Your task to perform on an android device: turn on priority inbox in the gmail app Image 0: 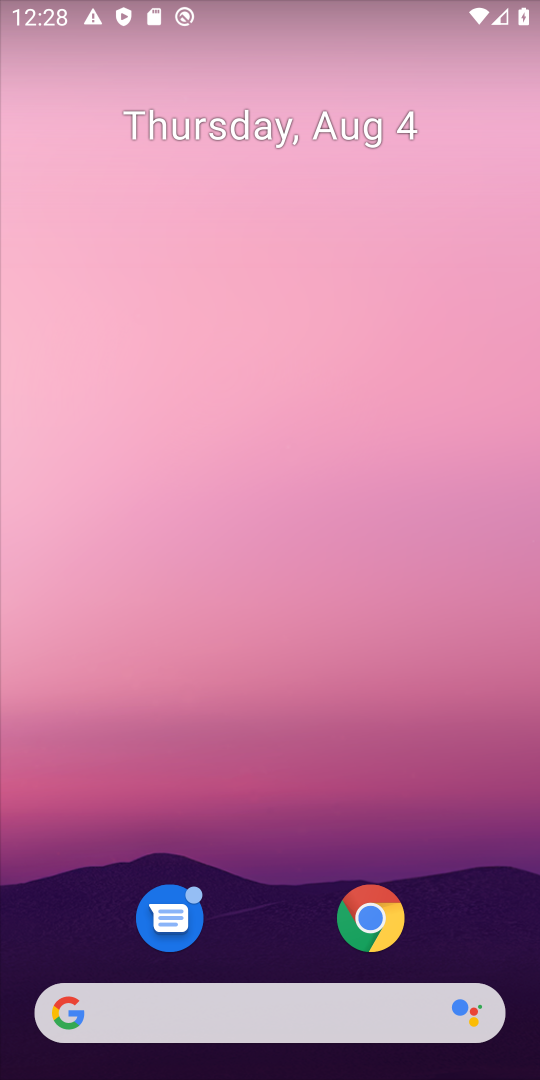
Step 0: drag from (267, 917) to (302, 252)
Your task to perform on an android device: turn on priority inbox in the gmail app Image 1: 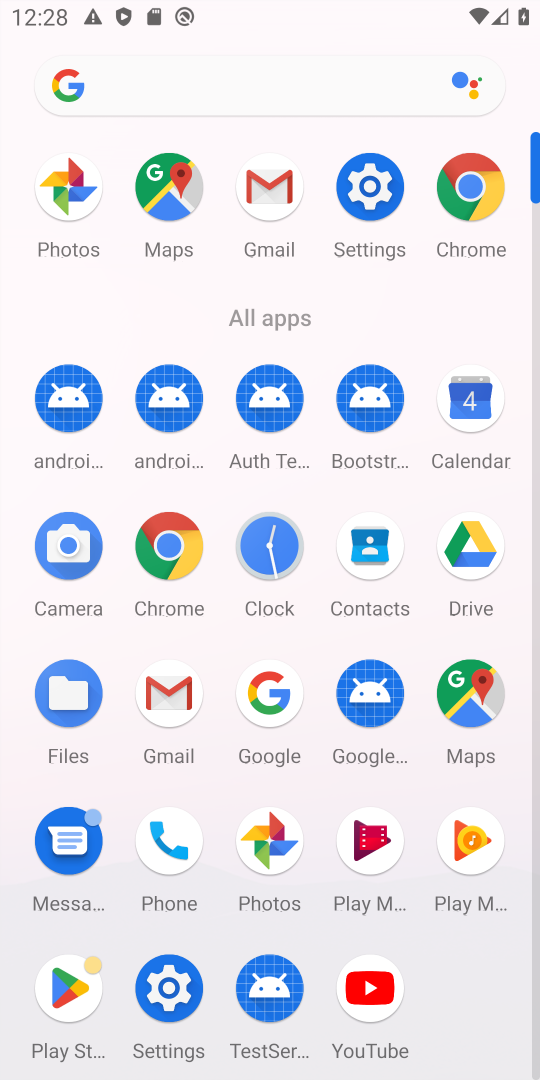
Step 1: click (280, 225)
Your task to perform on an android device: turn on priority inbox in the gmail app Image 2: 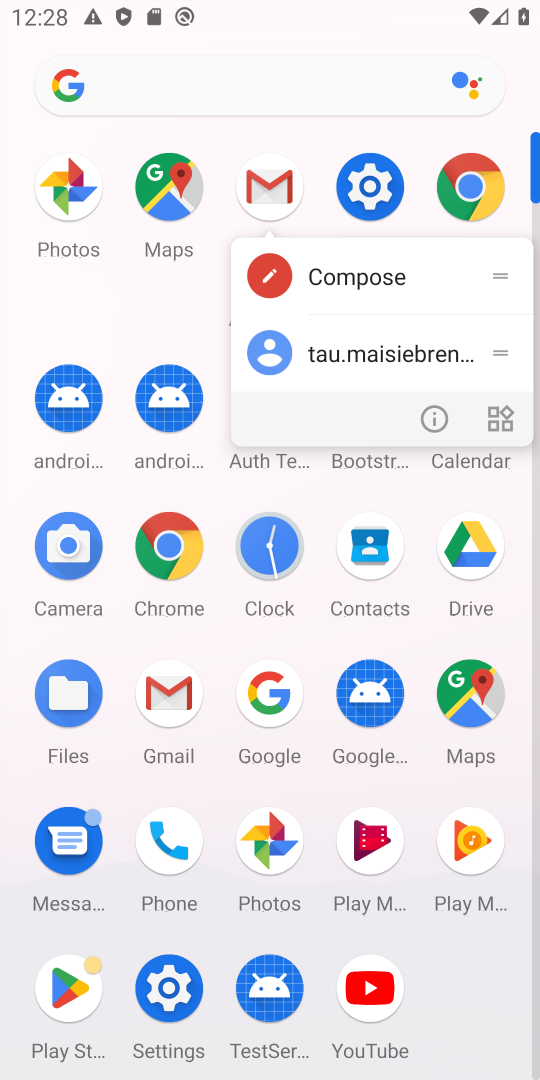
Step 2: click (259, 161)
Your task to perform on an android device: turn on priority inbox in the gmail app Image 3: 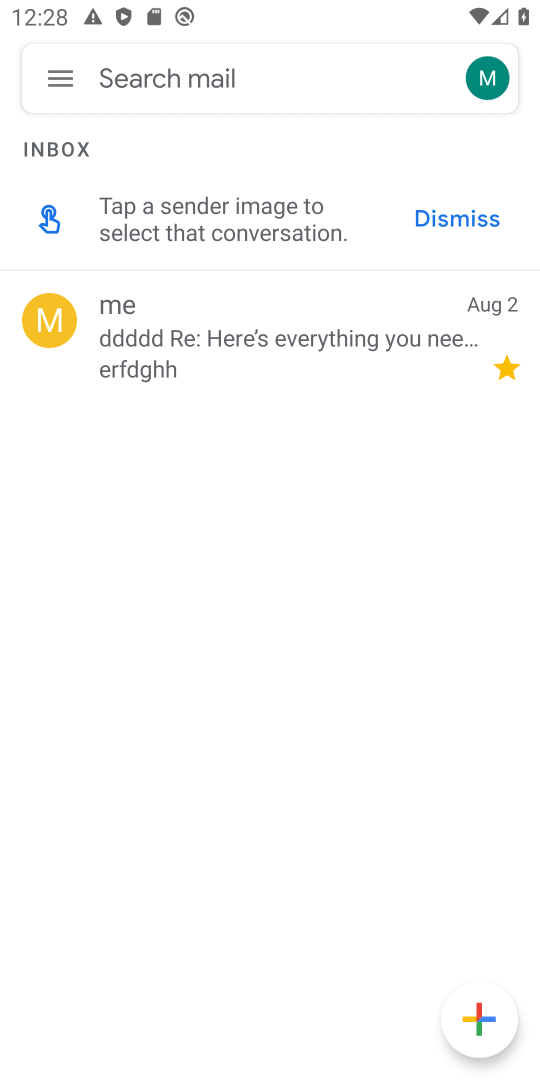
Step 3: click (82, 61)
Your task to perform on an android device: turn on priority inbox in the gmail app Image 4: 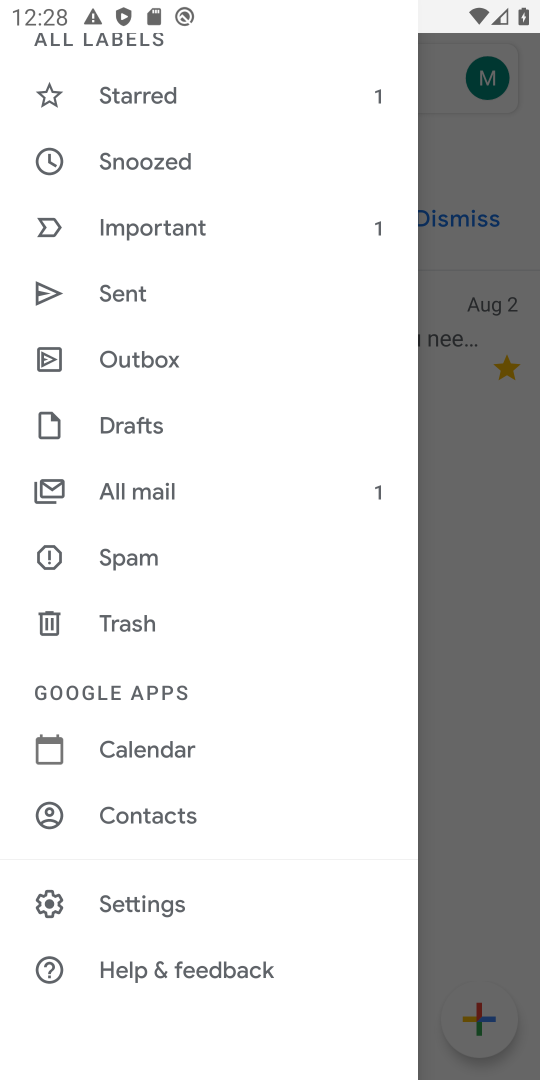
Step 4: click (160, 890)
Your task to perform on an android device: turn on priority inbox in the gmail app Image 5: 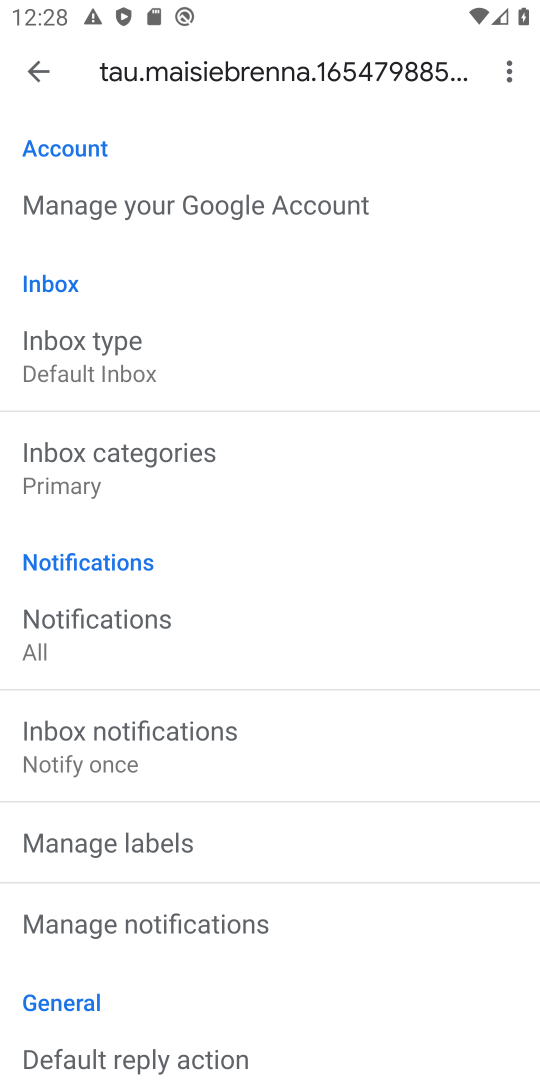
Step 5: click (162, 323)
Your task to perform on an android device: turn on priority inbox in the gmail app Image 6: 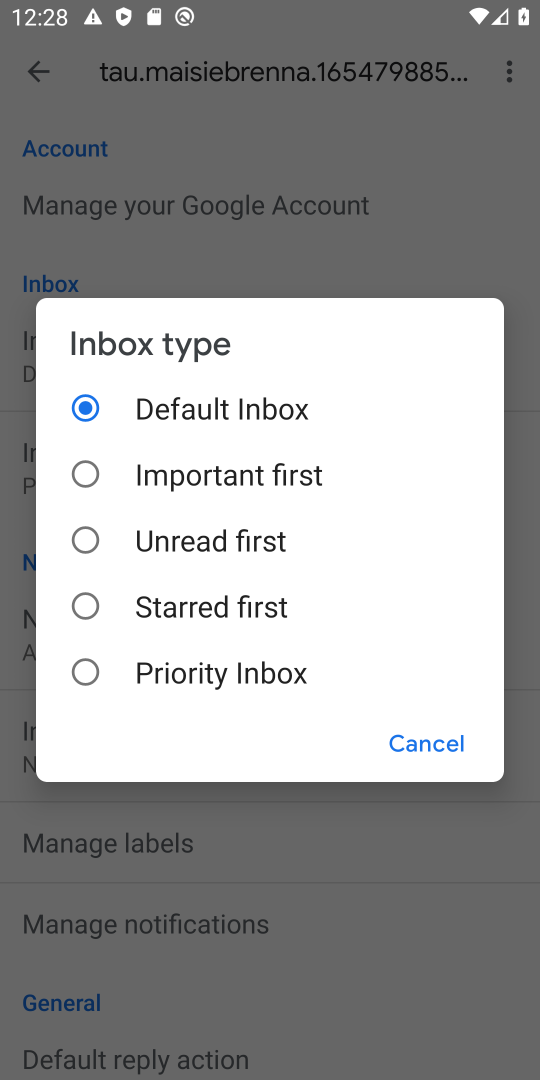
Step 6: click (164, 663)
Your task to perform on an android device: turn on priority inbox in the gmail app Image 7: 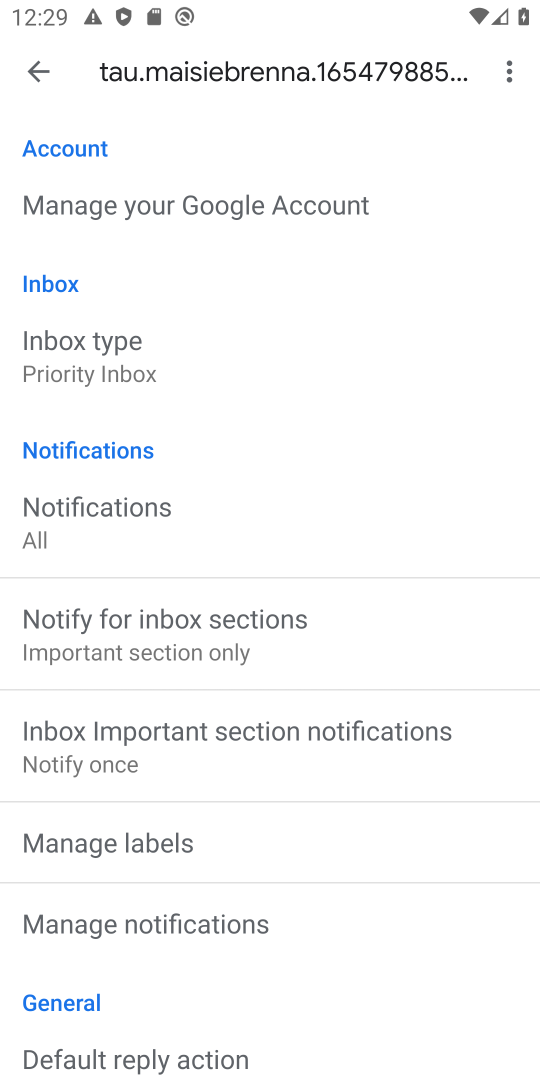
Step 7: task complete